Your task to perform on an android device: How much does a 3 bedroom apartment rent for in Dallas? Image 0: 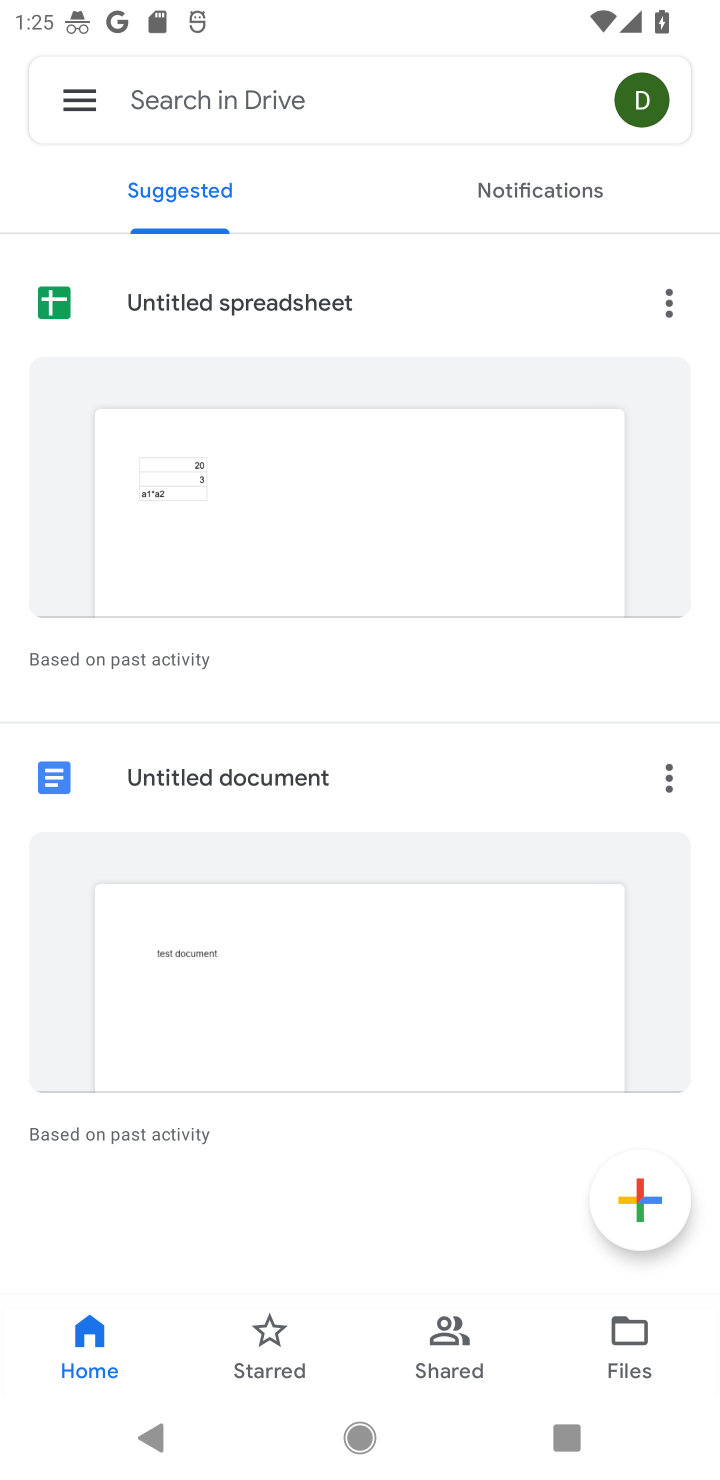
Step 0: press home button
Your task to perform on an android device: How much does a 3 bedroom apartment rent for in Dallas? Image 1: 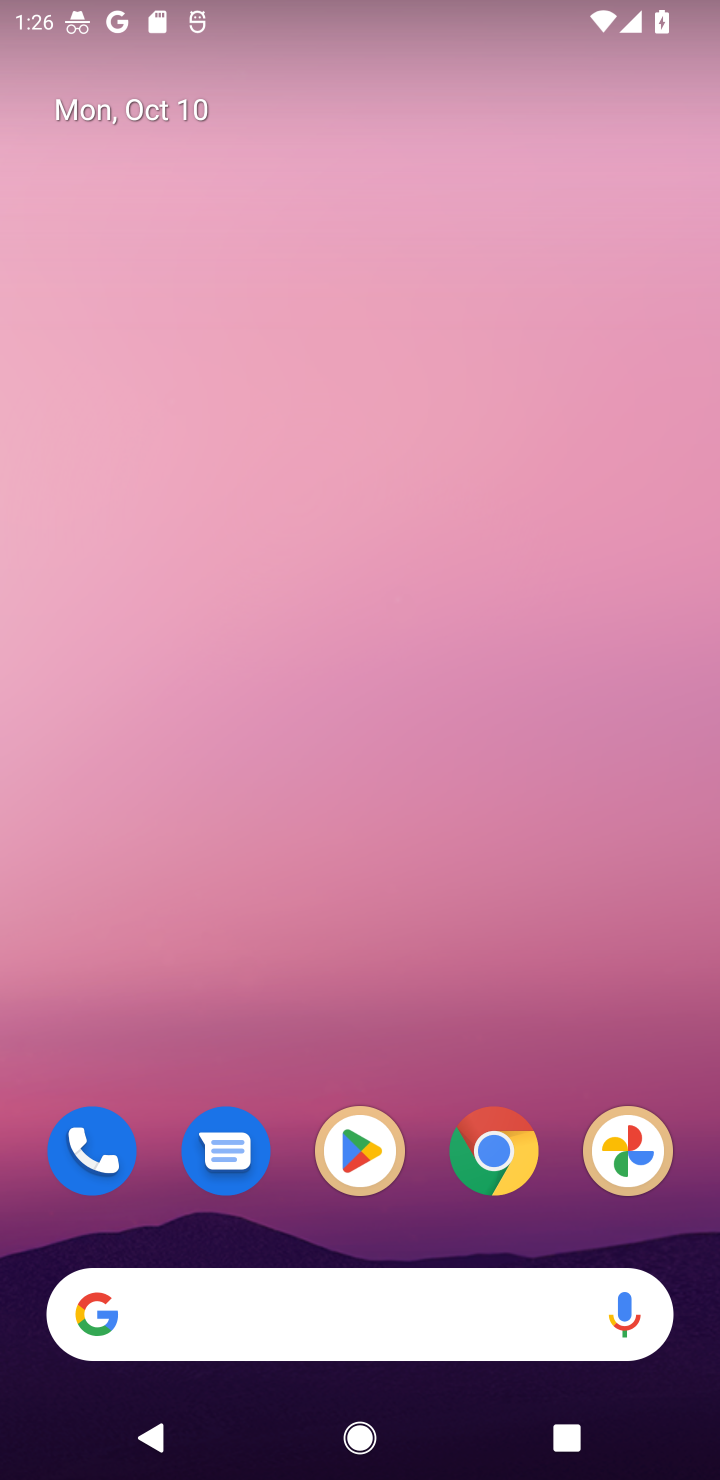
Step 1: click (218, 1304)
Your task to perform on an android device: How much does a 3 bedroom apartment rent for in Dallas? Image 2: 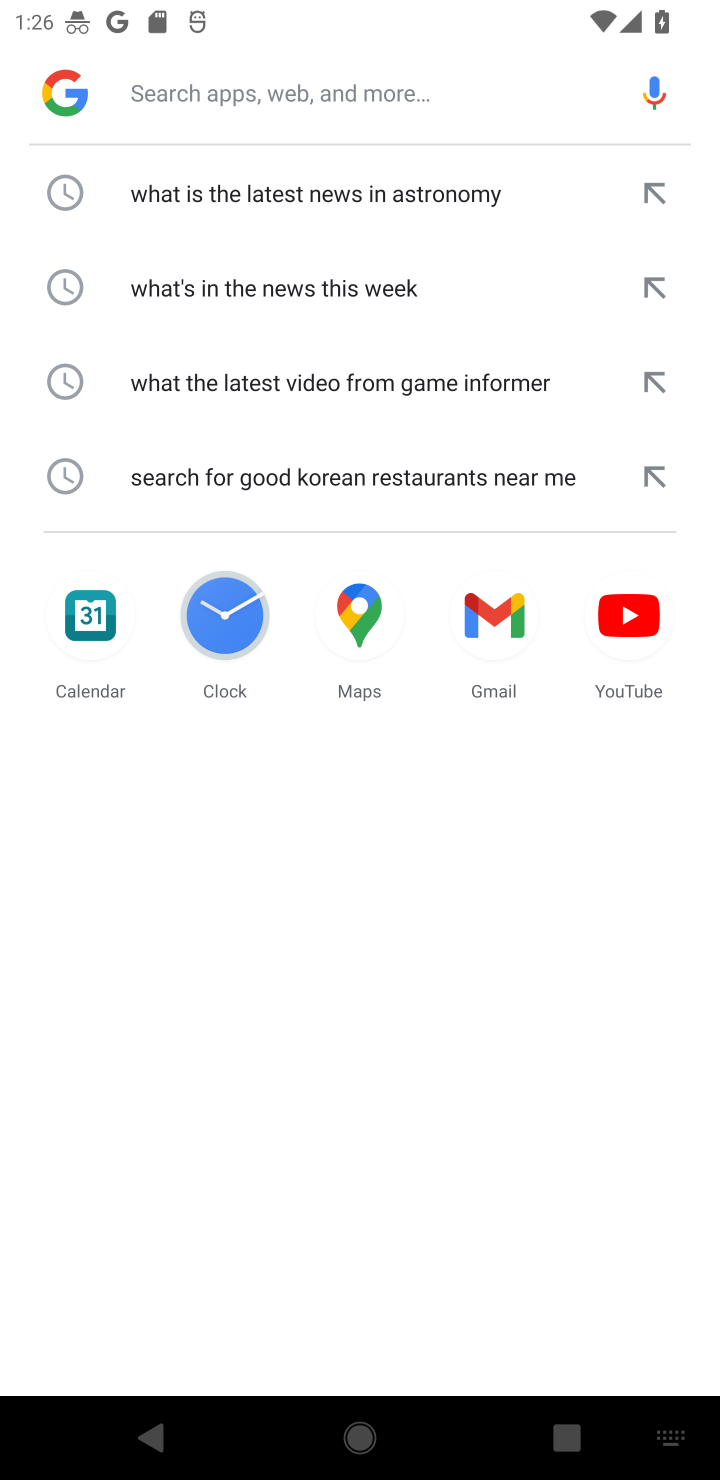
Step 2: type "How much does a 3 bedroom apartment rent for in Dallas?"
Your task to perform on an android device: How much does a 3 bedroom apartment rent for in Dallas? Image 3: 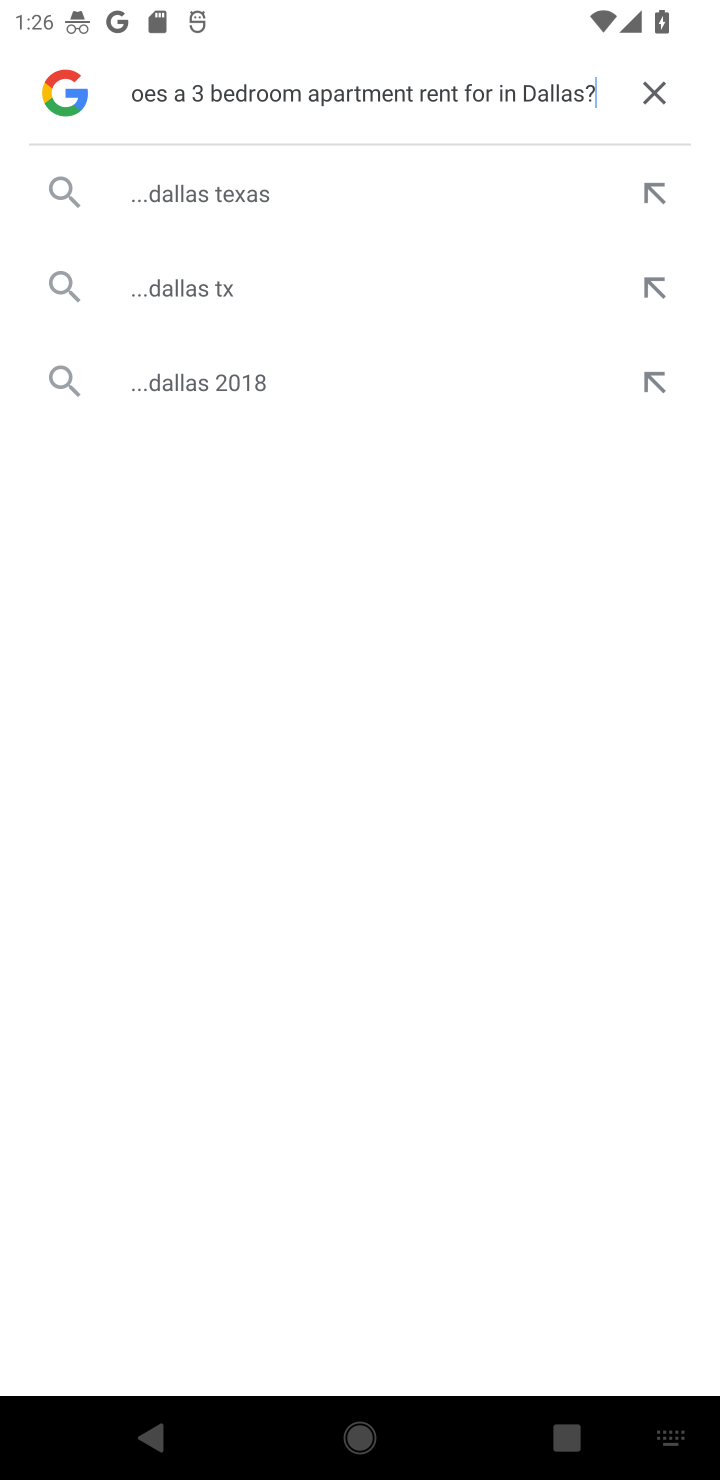
Step 3: click (185, 297)
Your task to perform on an android device: How much does a 3 bedroom apartment rent for in Dallas? Image 4: 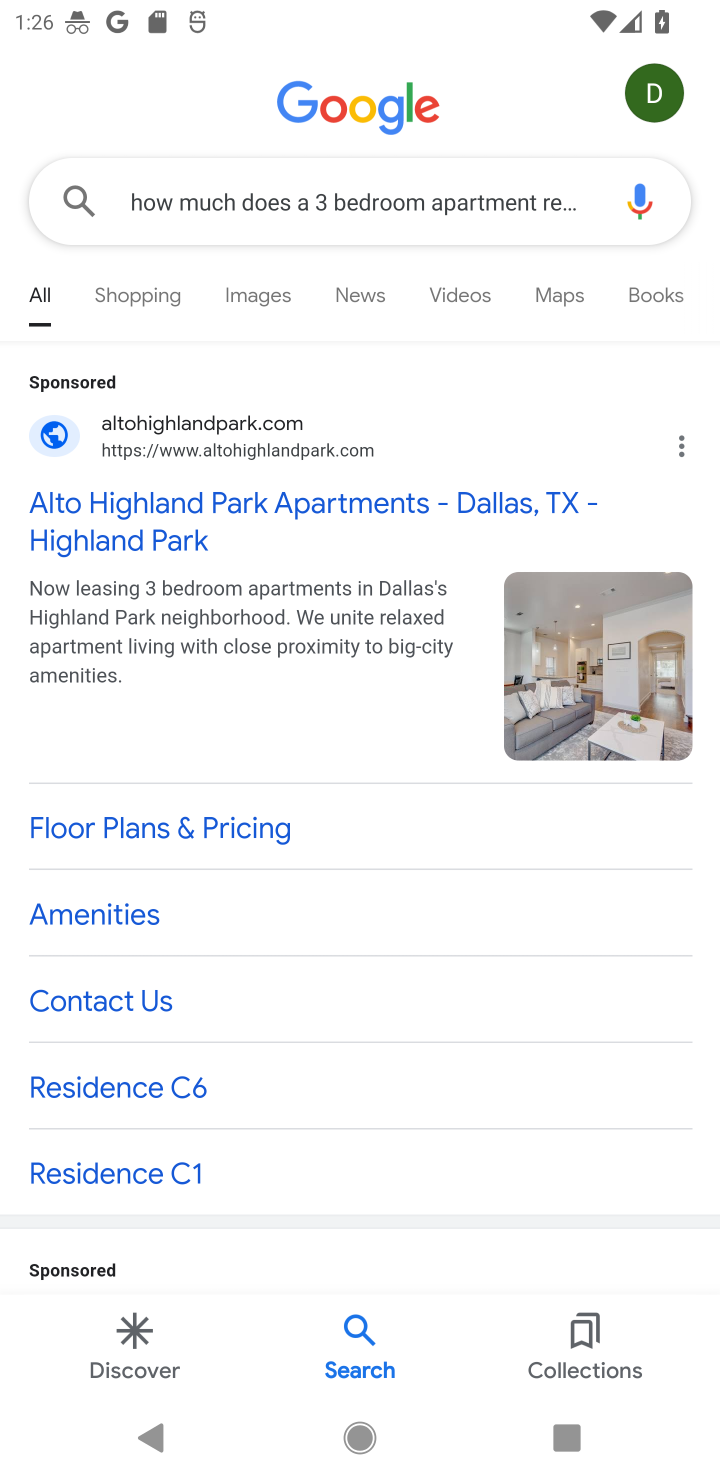
Step 4: click (211, 480)
Your task to perform on an android device: How much does a 3 bedroom apartment rent for in Dallas? Image 5: 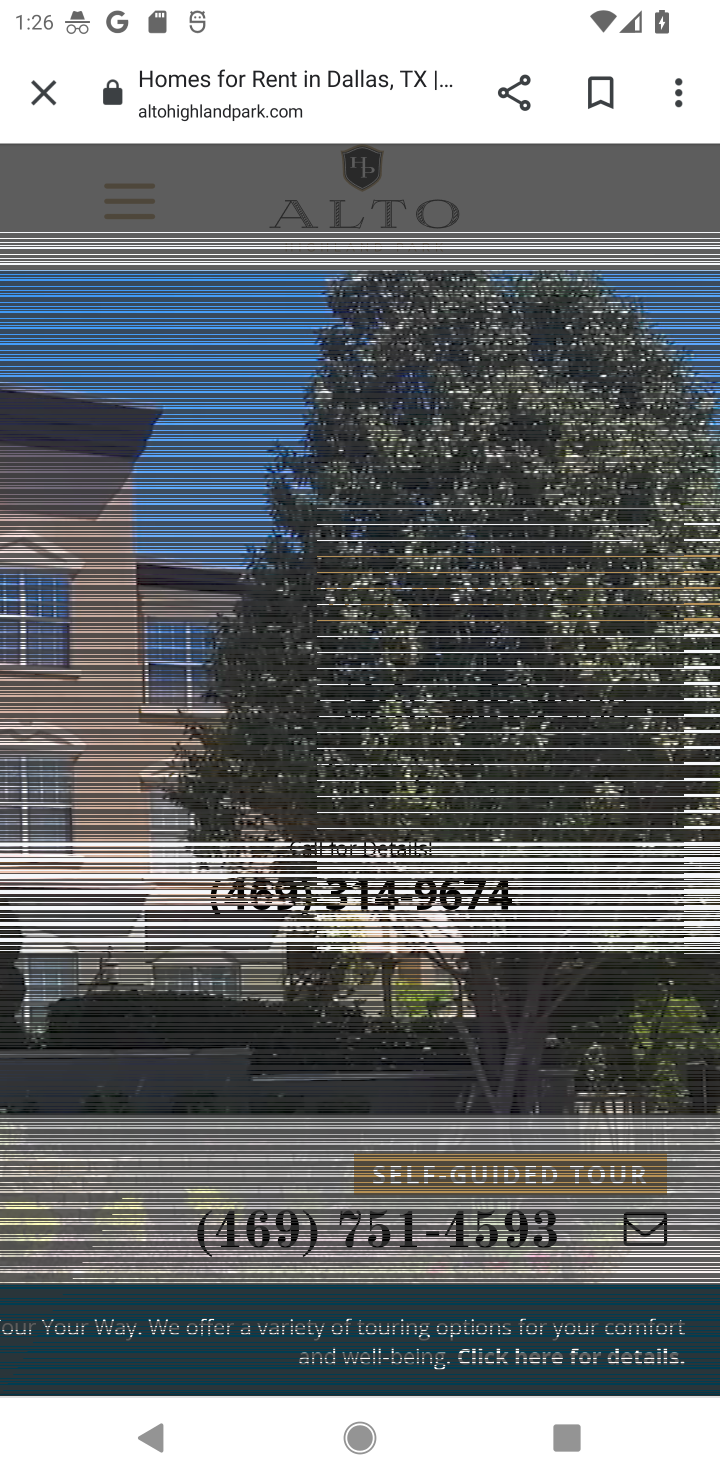
Step 5: click (595, 446)
Your task to perform on an android device: How much does a 3 bedroom apartment rent for in Dallas? Image 6: 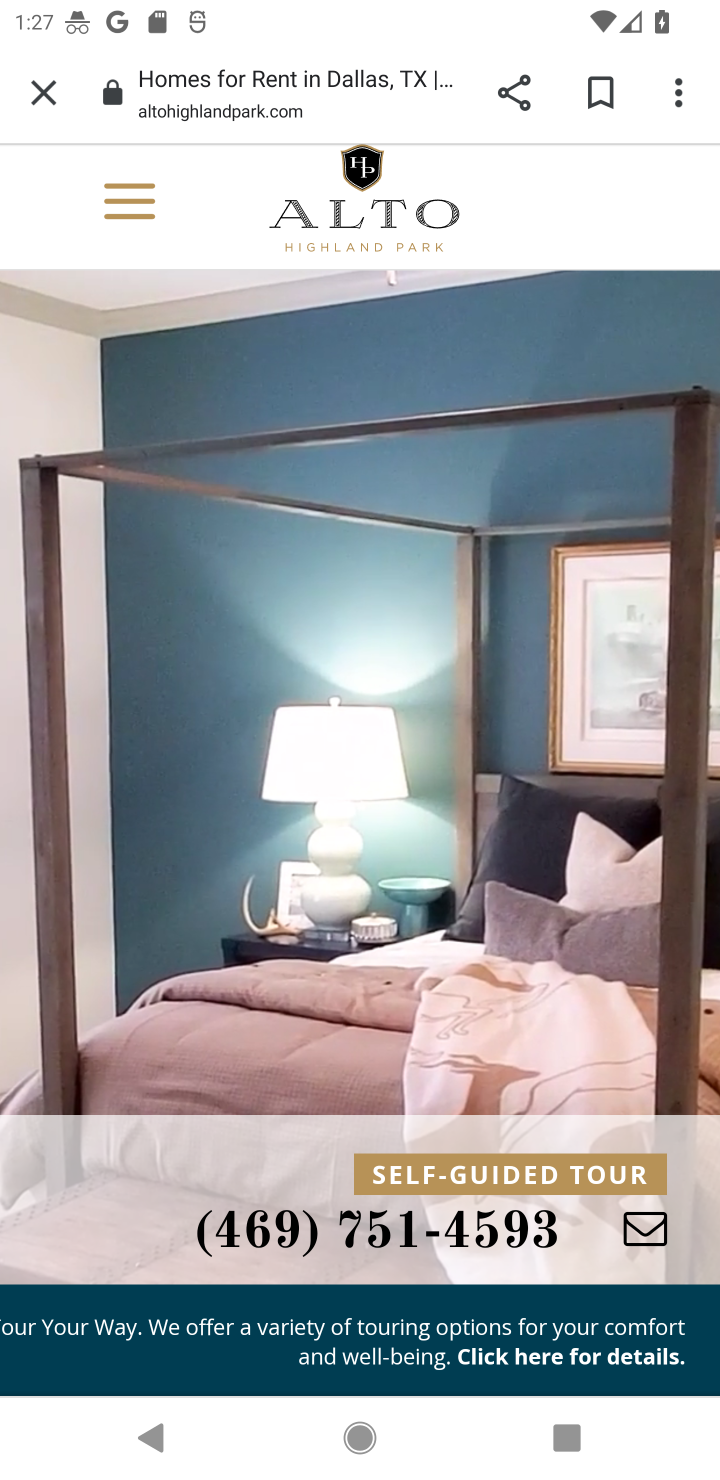
Step 6: task complete